Your task to perform on an android device: turn off notifications in google photos Image 0: 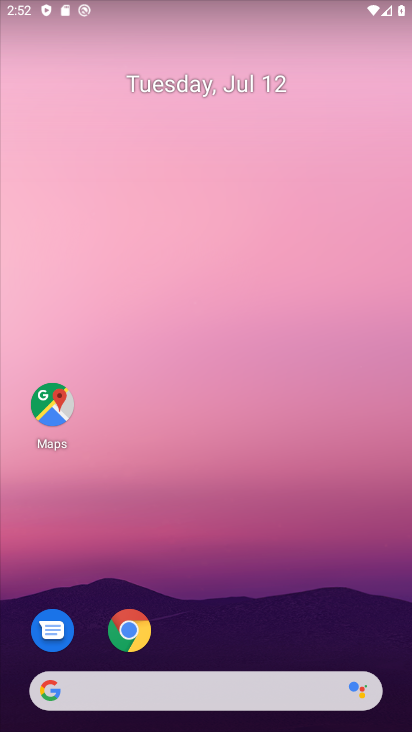
Step 0: drag from (326, 696) to (304, 31)
Your task to perform on an android device: turn off notifications in google photos Image 1: 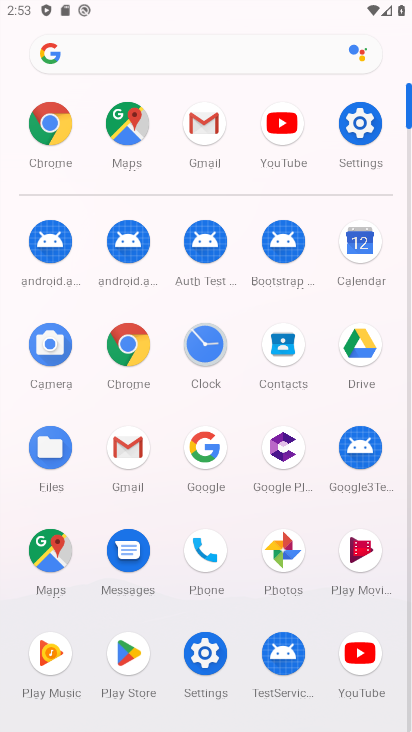
Step 1: click (270, 550)
Your task to perform on an android device: turn off notifications in google photos Image 2: 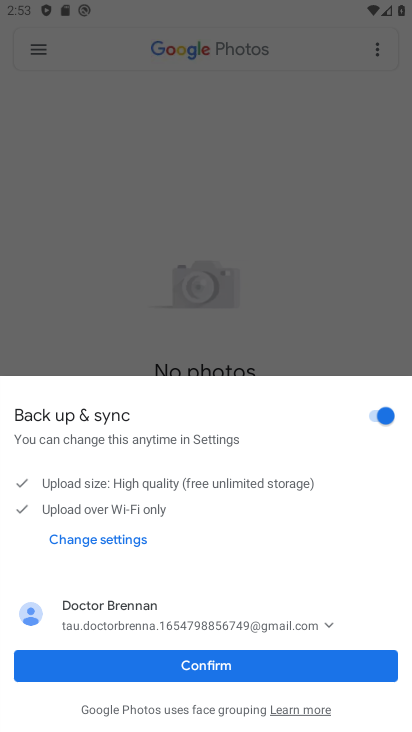
Step 2: click (161, 660)
Your task to perform on an android device: turn off notifications in google photos Image 3: 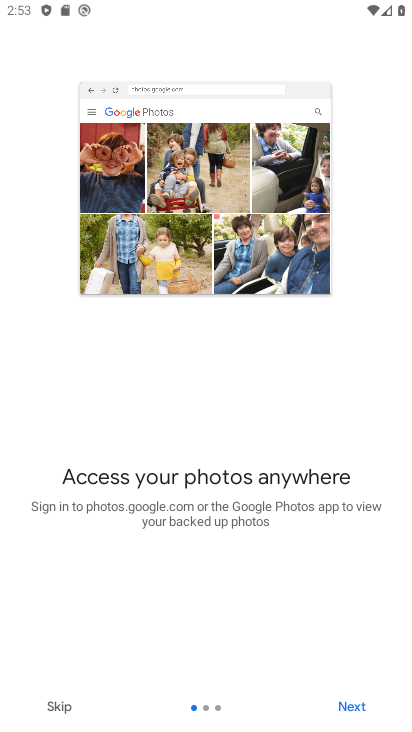
Step 3: click (352, 709)
Your task to perform on an android device: turn off notifications in google photos Image 4: 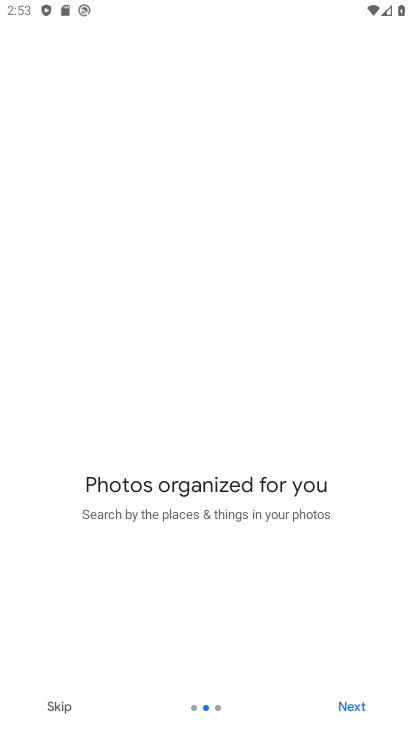
Step 4: click (351, 709)
Your task to perform on an android device: turn off notifications in google photos Image 5: 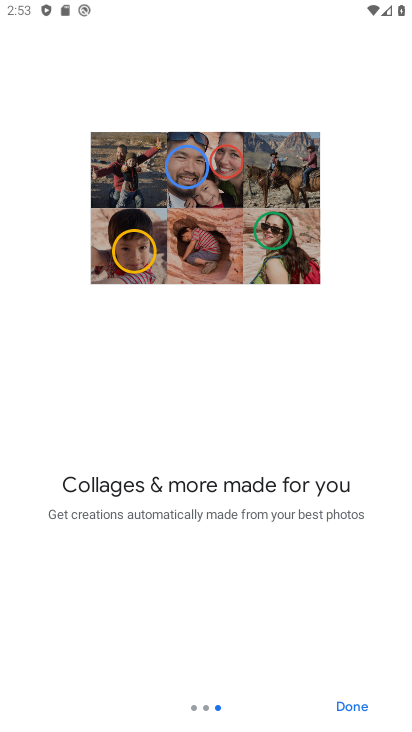
Step 5: click (350, 706)
Your task to perform on an android device: turn off notifications in google photos Image 6: 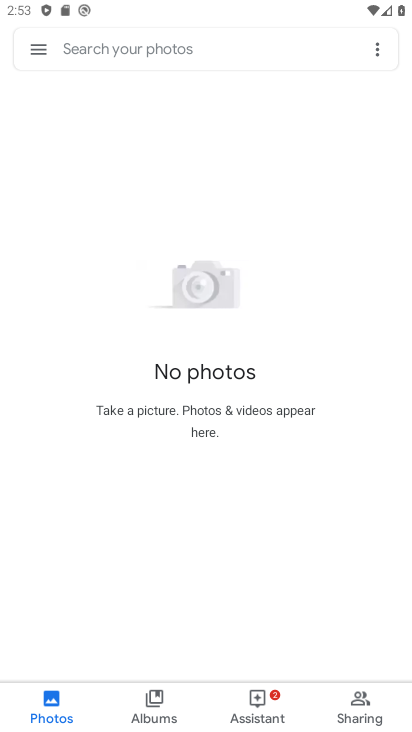
Step 6: click (27, 45)
Your task to perform on an android device: turn off notifications in google photos Image 7: 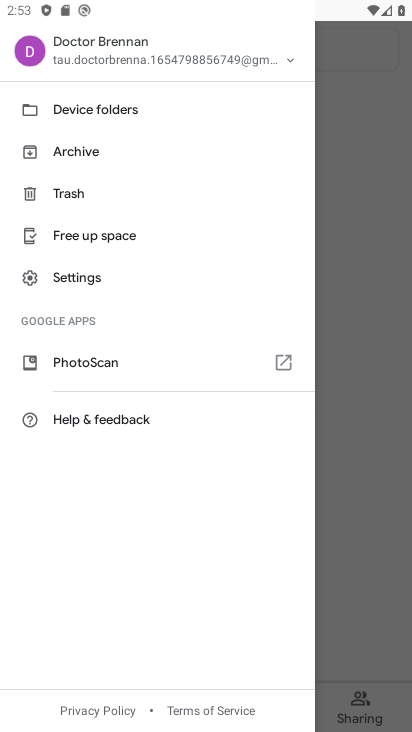
Step 7: click (88, 274)
Your task to perform on an android device: turn off notifications in google photos Image 8: 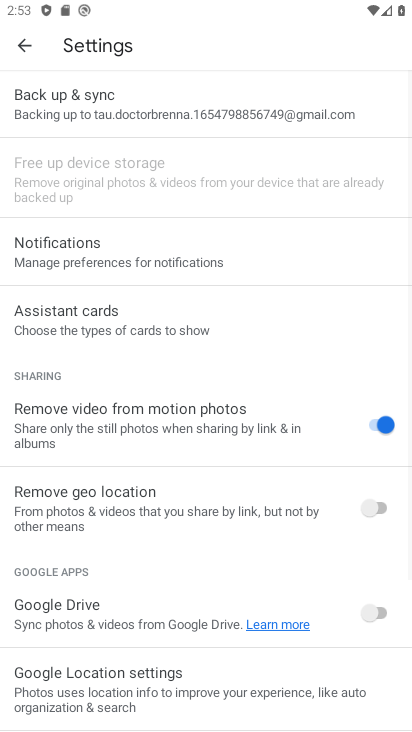
Step 8: click (107, 263)
Your task to perform on an android device: turn off notifications in google photos Image 9: 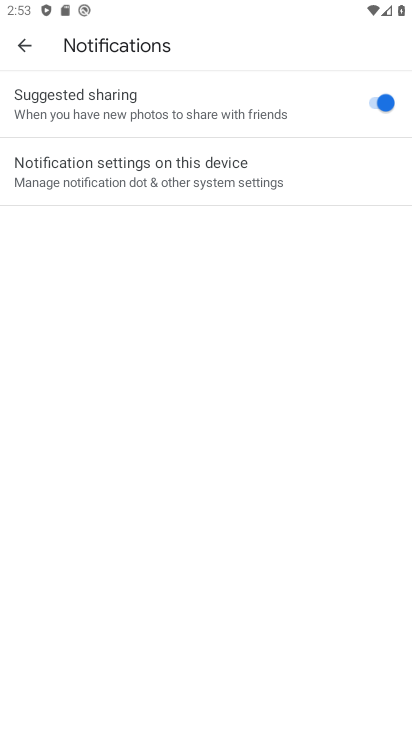
Step 9: click (192, 161)
Your task to perform on an android device: turn off notifications in google photos Image 10: 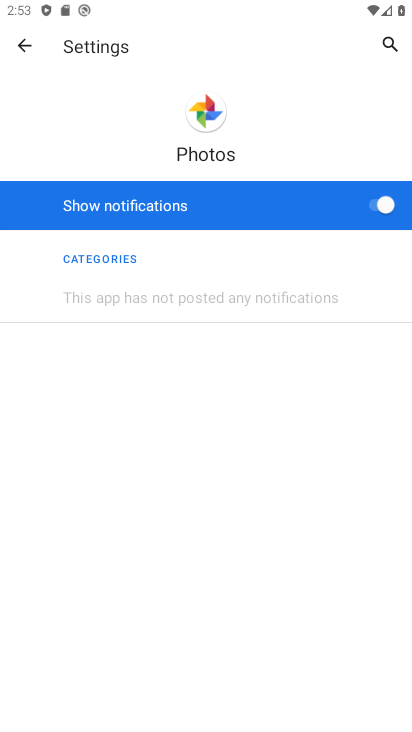
Step 10: click (383, 199)
Your task to perform on an android device: turn off notifications in google photos Image 11: 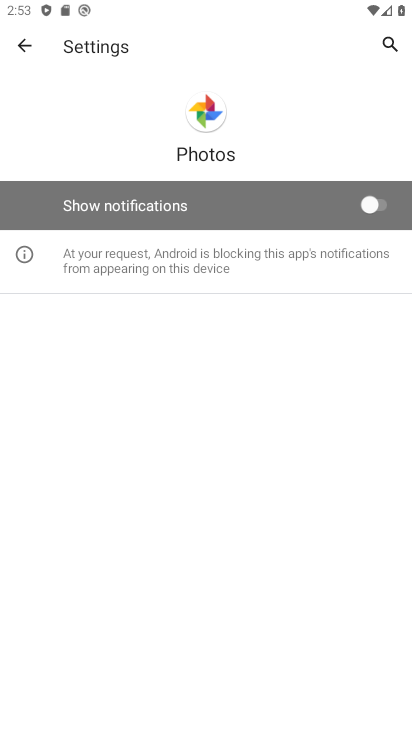
Step 11: task complete